Your task to perform on an android device: Open sound settings Image 0: 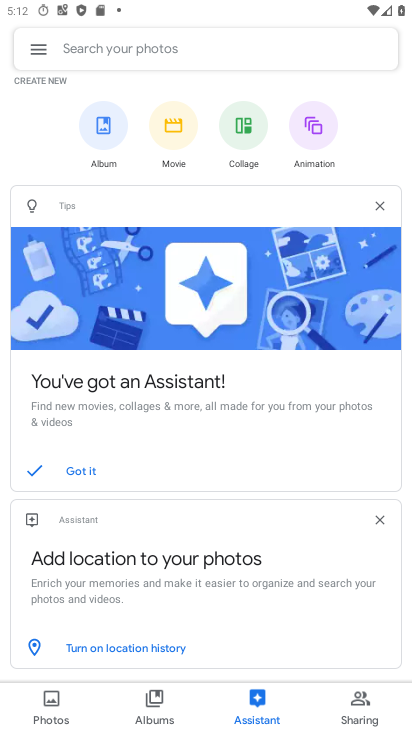
Step 0: press home button
Your task to perform on an android device: Open sound settings Image 1: 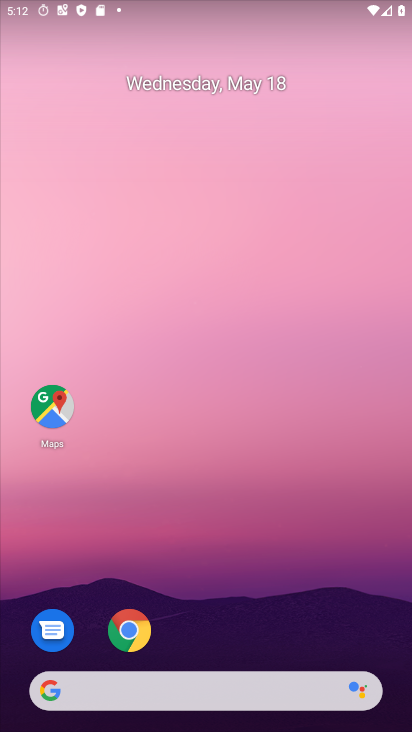
Step 1: drag from (190, 667) to (199, 227)
Your task to perform on an android device: Open sound settings Image 2: 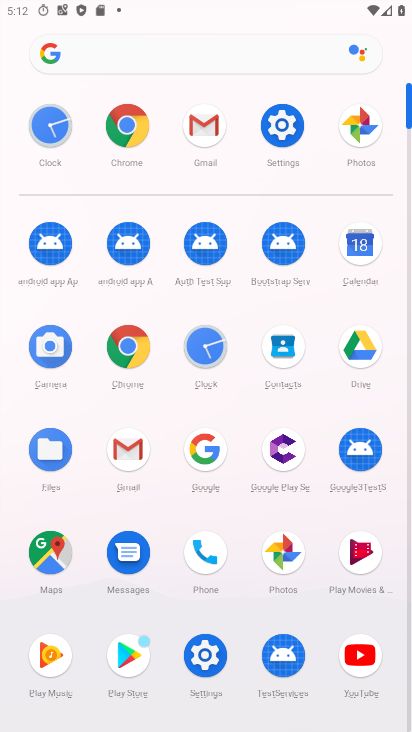
Step 2: click (278, 123)
Your task to perform on an android device: Open sound settings Image 3: 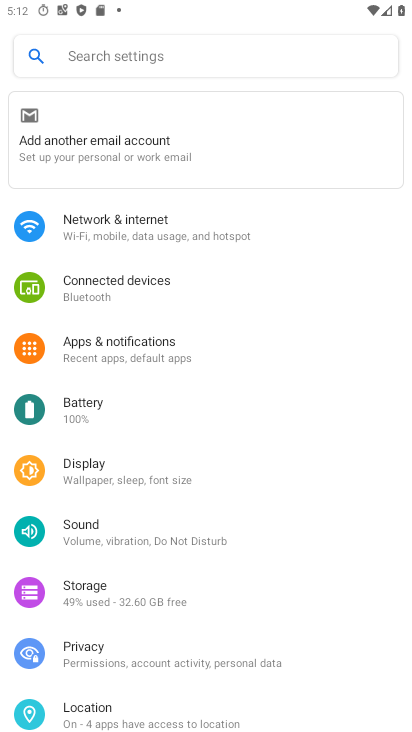
Step 3: click (86, 533)
Your task to perform on an android device: Open sound settings Image 4: 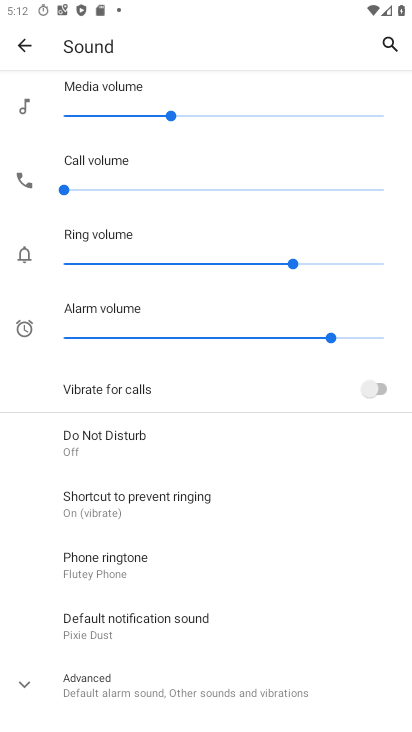
Step 4: click (155, 692)
Your task to perform on an android device: Open sound settings Image 5: 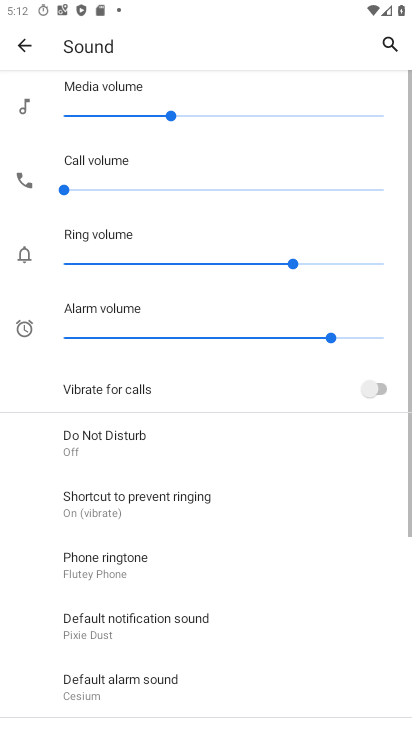
Step 5: task complete